Your task to perform on an android device: Go to Maps Image 0: 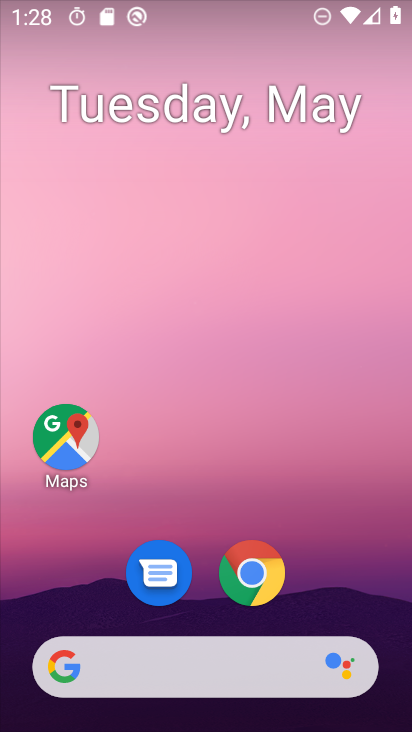
Step 0: drag from (316, 249) to (316, 154)
Your task to perform on an android device: Go to Maps Image 1: 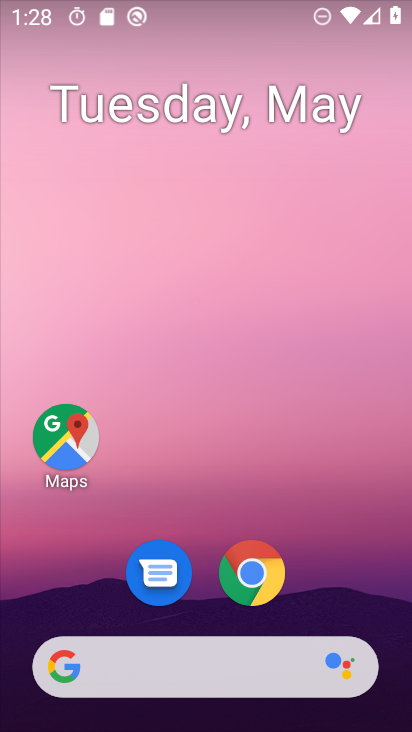
Step 1: drag from (369, 571) to (357, 71)
Your task to perform on an android device: Go to Maps Image 2: 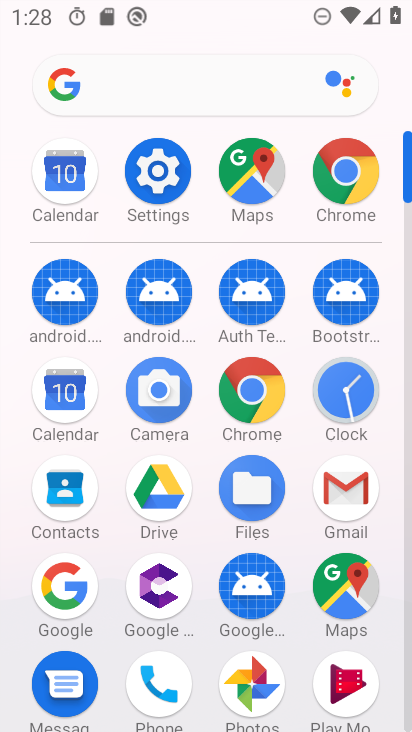
Step 2: click (262, 189)
Your task to perform on an android device: Go to Maps Image 3: 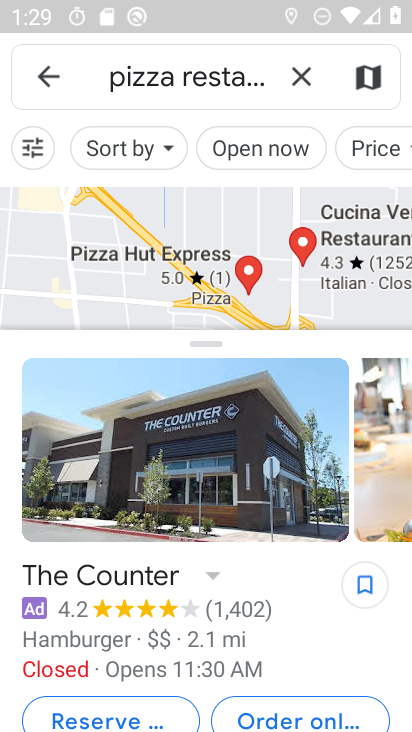
Step 3: task complete